Your task to perform on an android device: Open Chrome and go to settings Image 0: 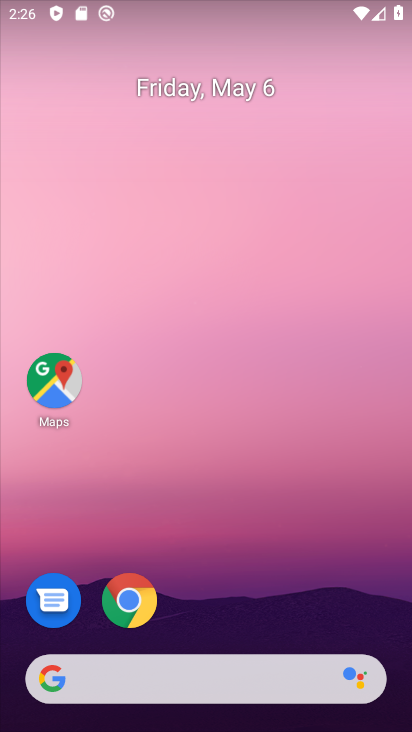
Step 0: click (126, 601)
Your task to perform on an android device: Open Chrome and go to settings Image 1: 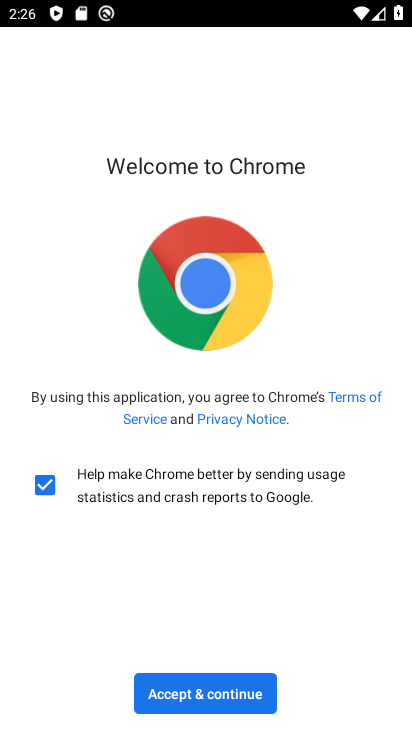
Step 1: click (239, 704)
Your task to perform on an android device: Open Chrome and go to settings Image 2: 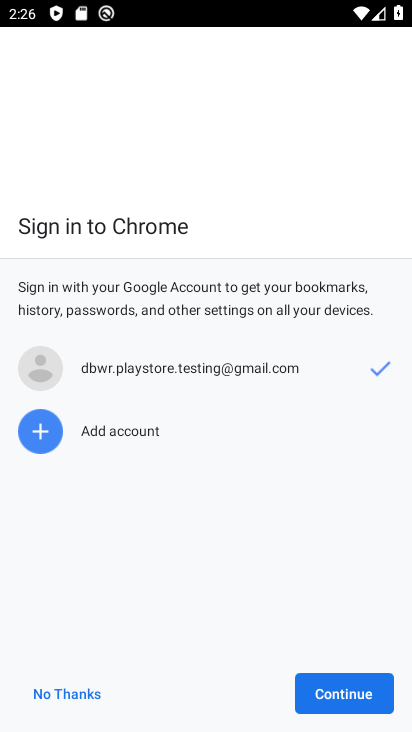
Step 2: click (319, 700)
Your task to perform on an android device: Open Chrome and go to settings Image 3: 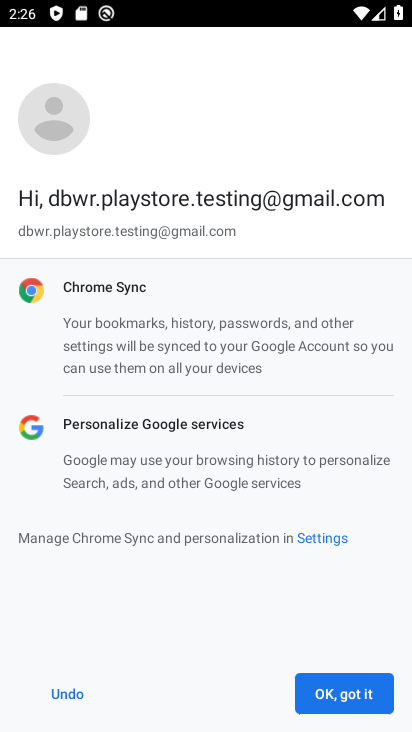
Step 3: click (319, 700)
Your task to perform on an android device: Open Chrome and go to settings Image 4: 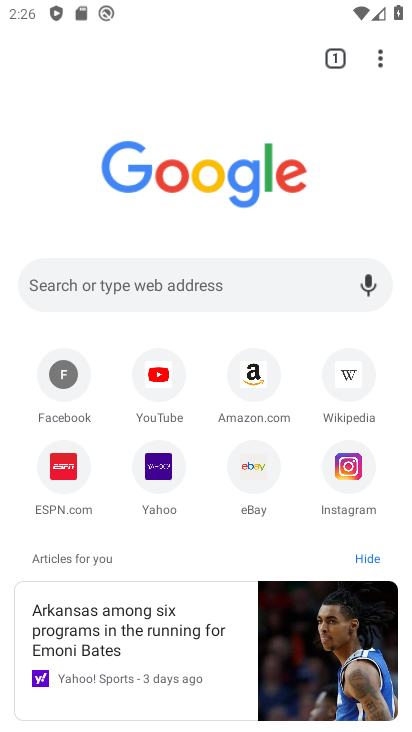
Step 4: task complete